Your task to perform on an android device: Open Reddit.com Image 0: 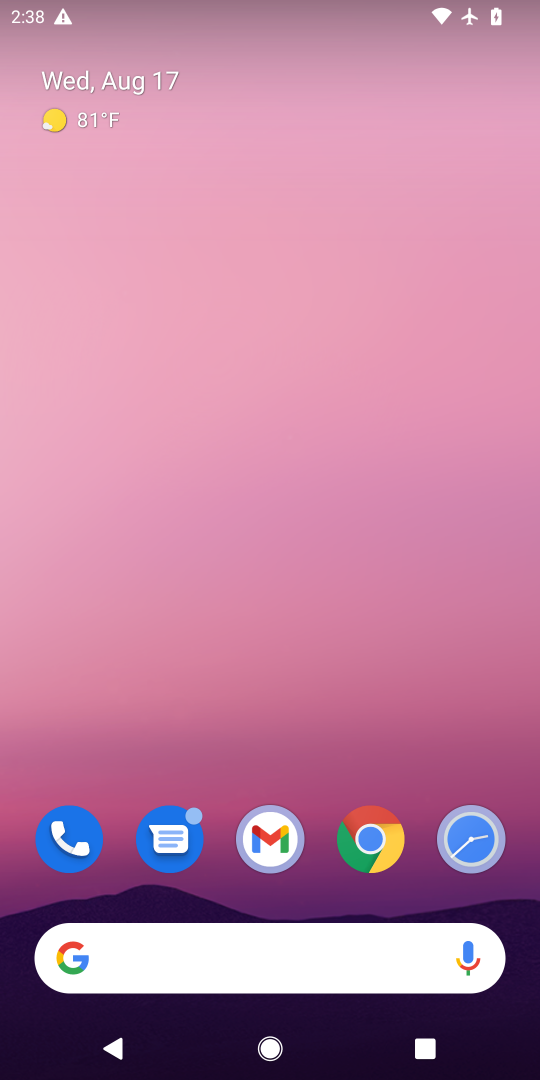
Step 0: drag from (325, 890) to (280, 100)
Your task to perform on an android device: Open Reddit.com Image 1: 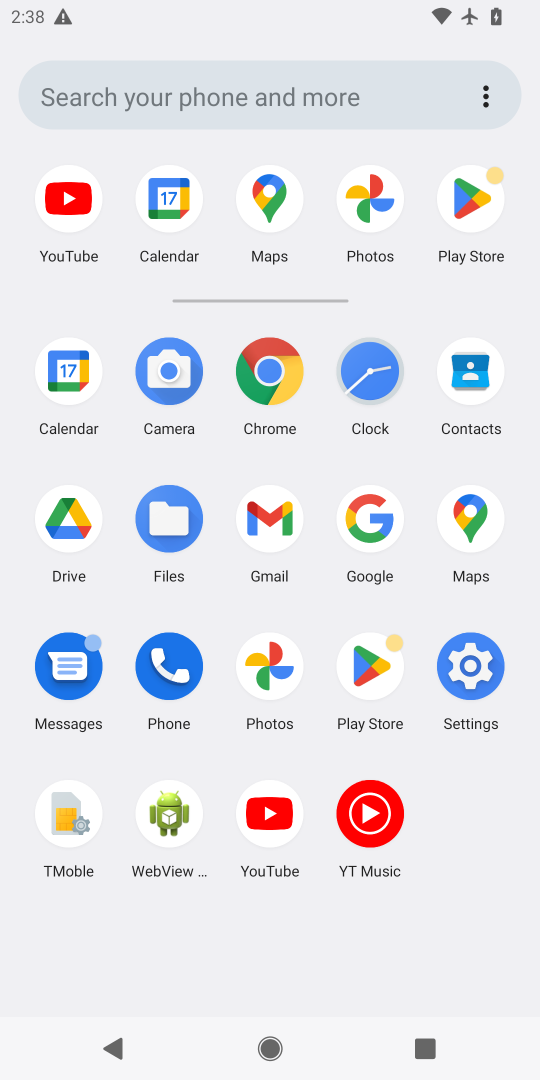
Step 1: click (268, 372)
Your task to perform on an android device: Open Reddit.com Image 2: 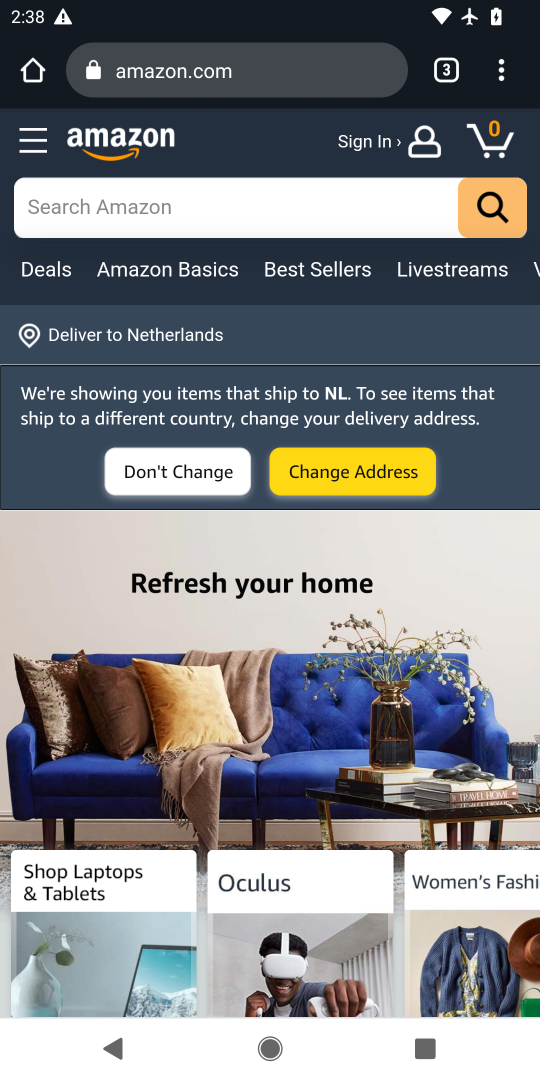
Step 2: drag from (503, 76) to (270, 210)
Your task to perform on an android device: Open Reddit.com Image 3: 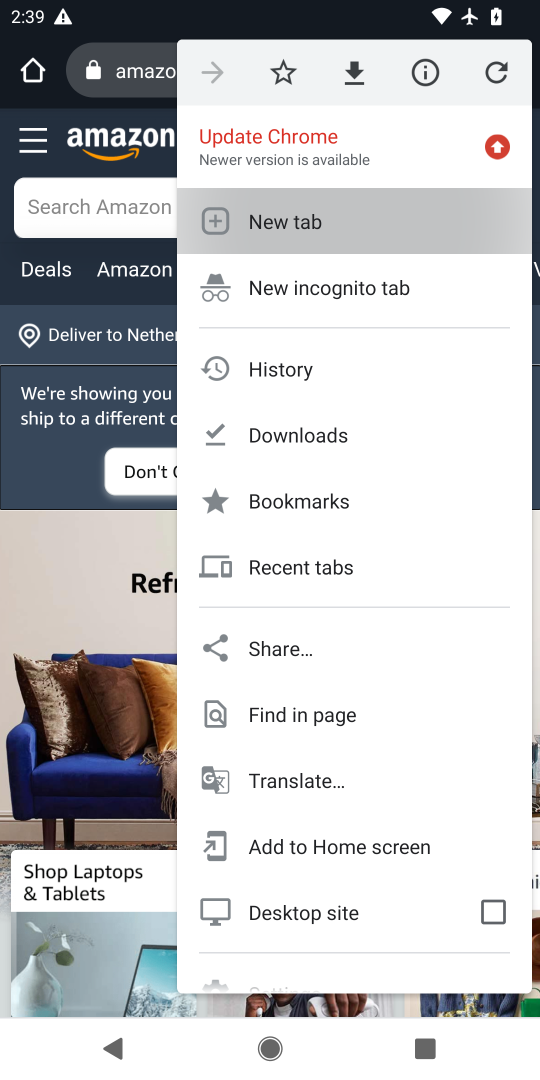
Step 3: click (268, 214)
Your task to perform on an android device: Open Reddit.com Image 4: 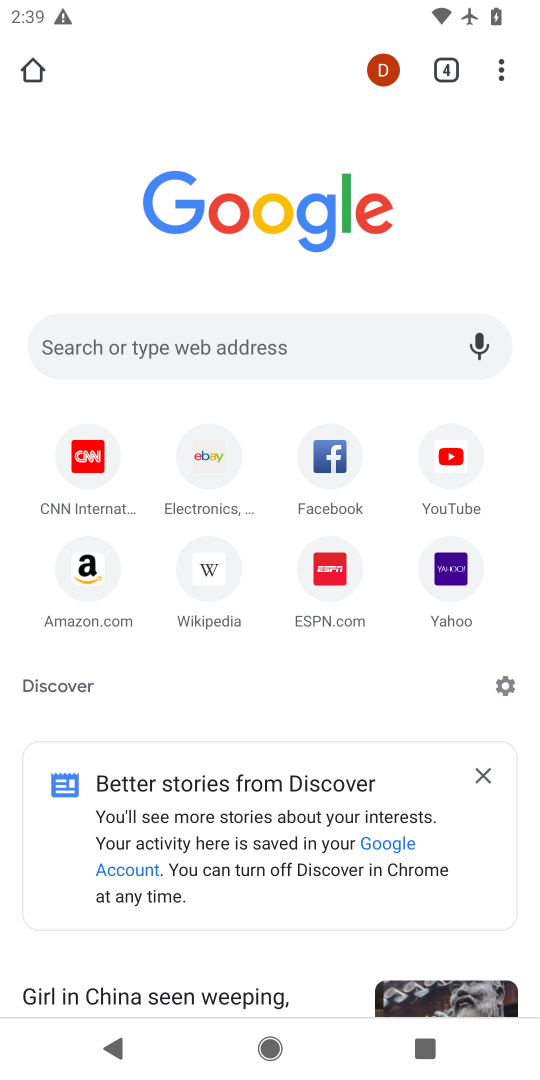
Step 4: click (276, 345)
Your task to perform on an android device: Open Reddit.com Image 5: 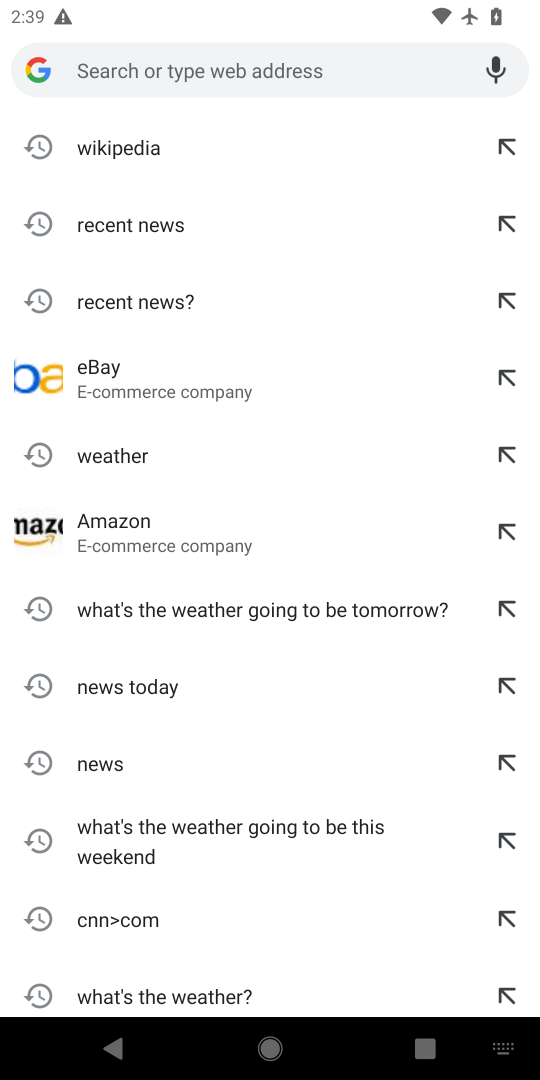
Step 5: type "Reddit.com"
Your task to perform on an android device: Open Reddit.com Image 6: 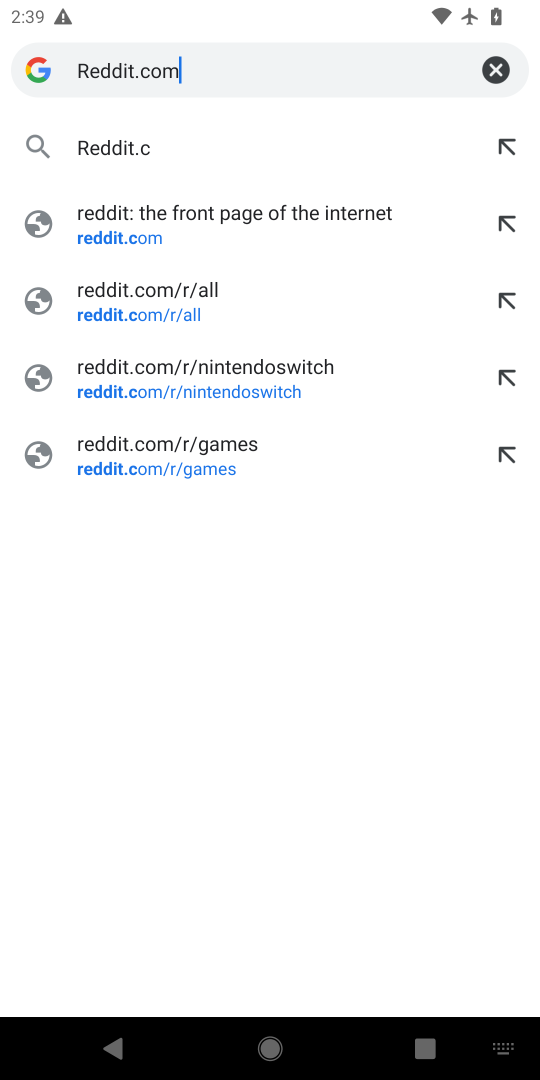
Step 6: type ""
Your task to perform on an android device: Open Reddit.com Image 7: 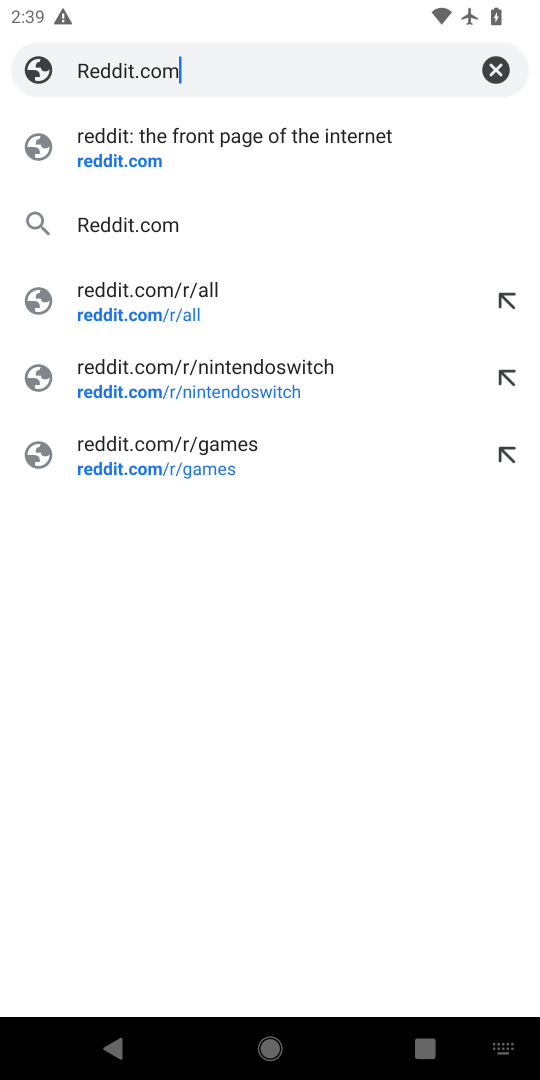
Step 7: click (99, 220)
Your task to perform on an android device: Open Reddit.com Image 8: 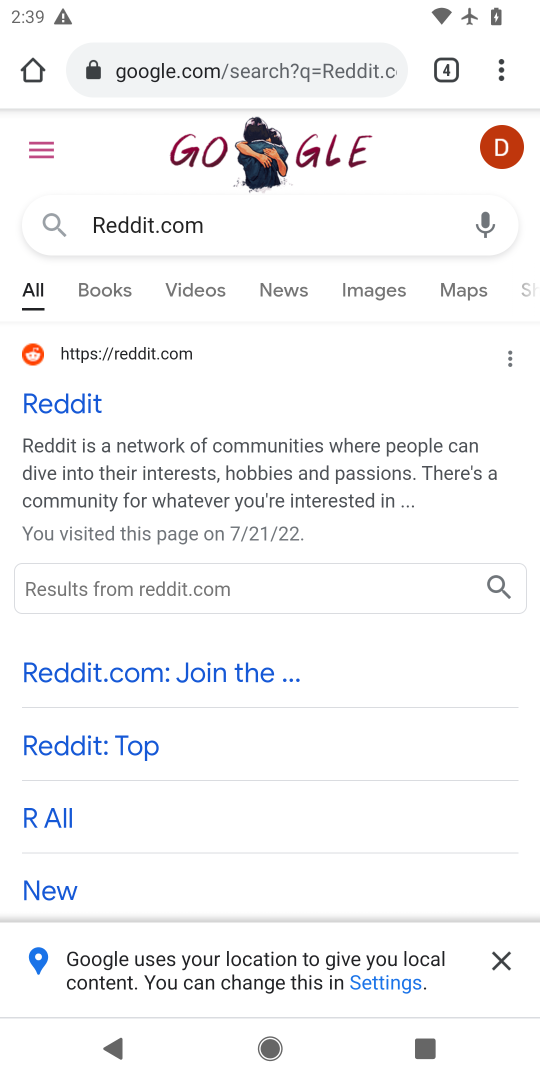
Step 8: click (64, 409)
Your task to perform on an android device: Open Reddit.com Image 9: 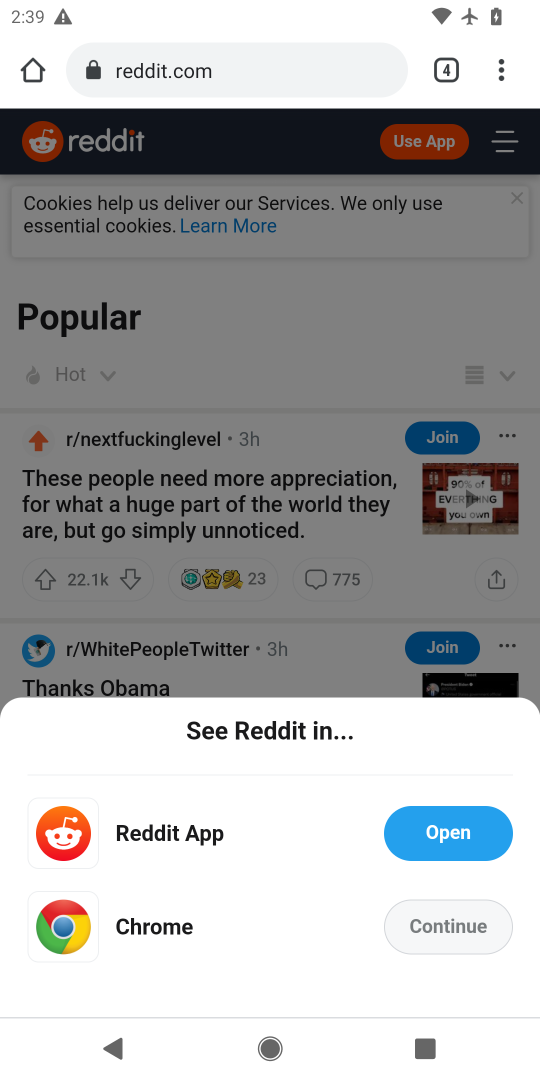
Step 9: task complete